Your task to perform on an android device: open app "Google Chrome" (install if not already installed) Image 0: 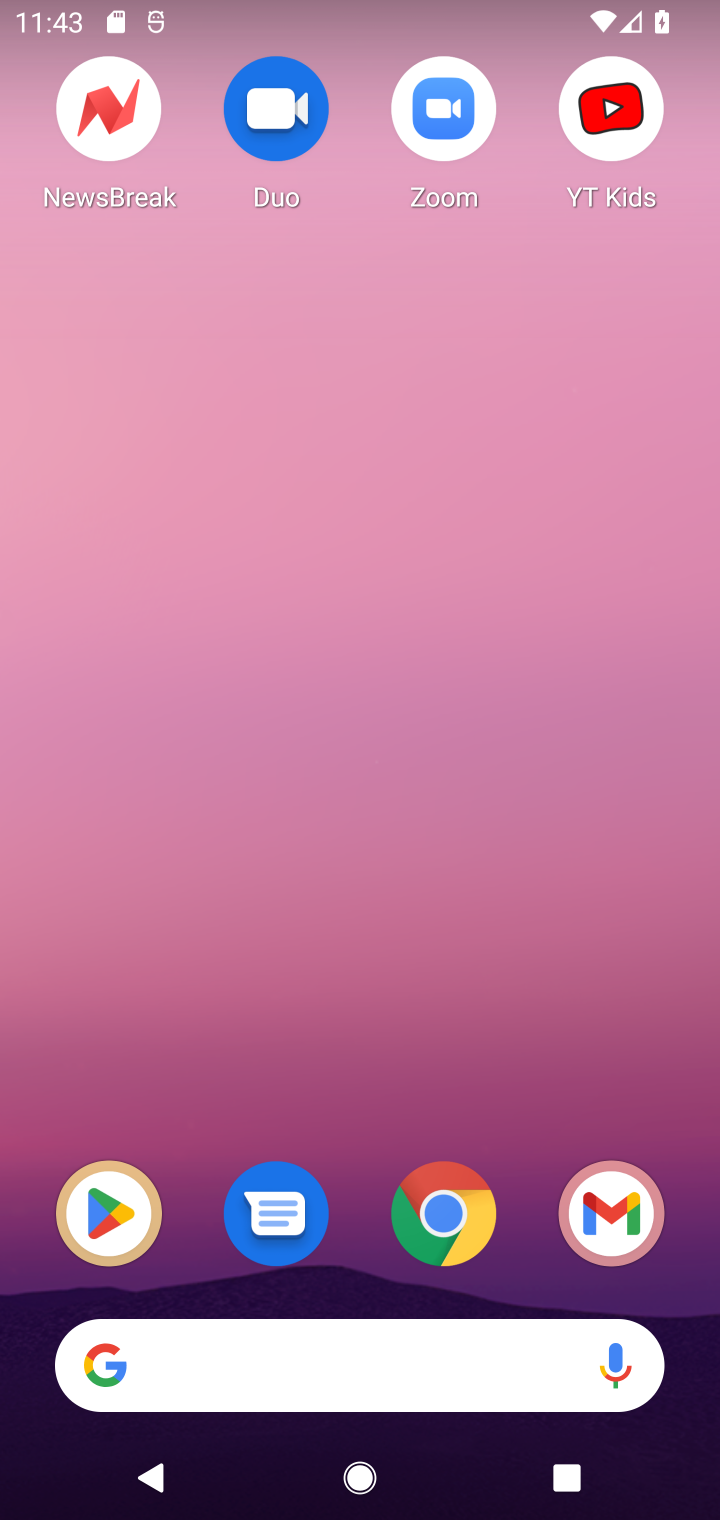
Step 0: click (455, 1229)
Your task to perform on an android device: open app "Google Chrome" (install if not already installed) Image 1: 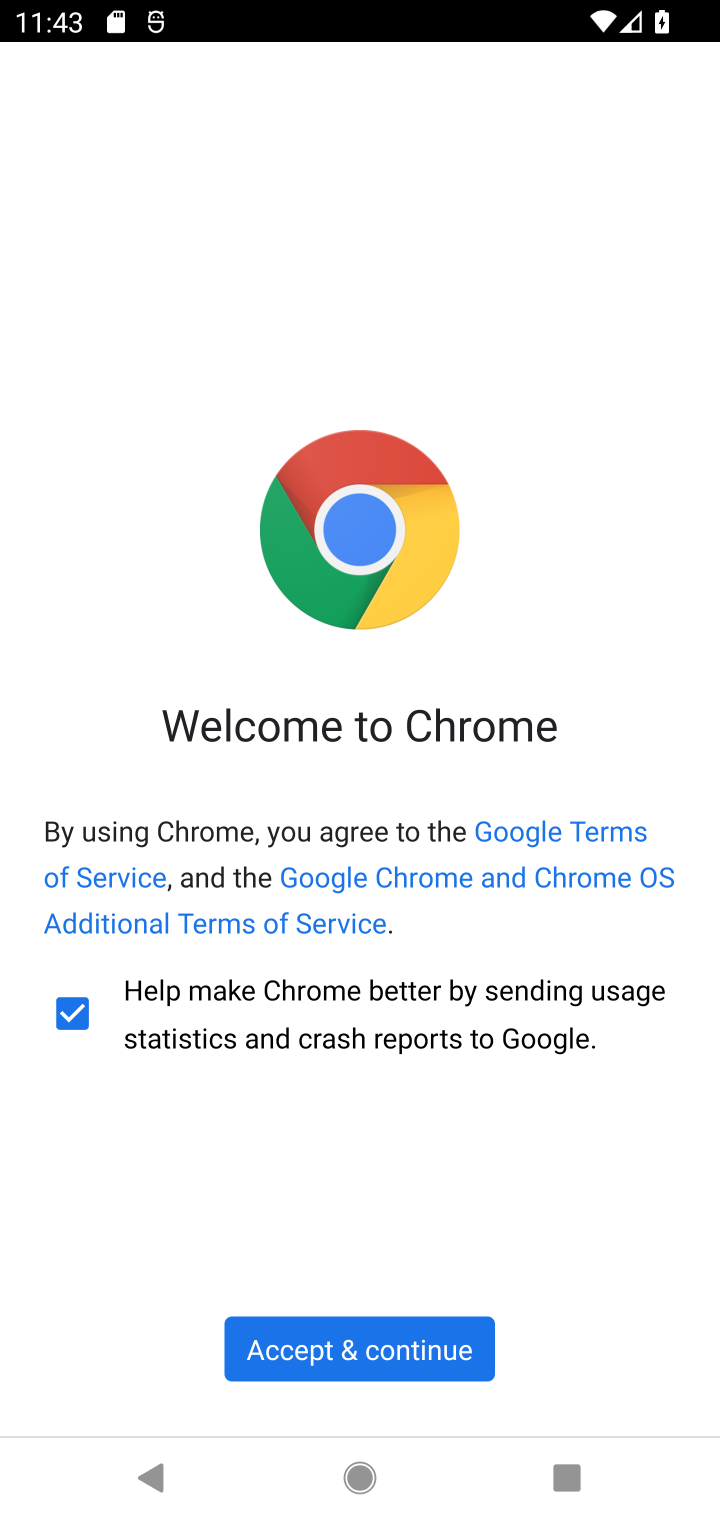
Step 1: click (330, 1333)
Your task to perform on an android device: open app "Google Chrome" (install if not already installed) Image 2: 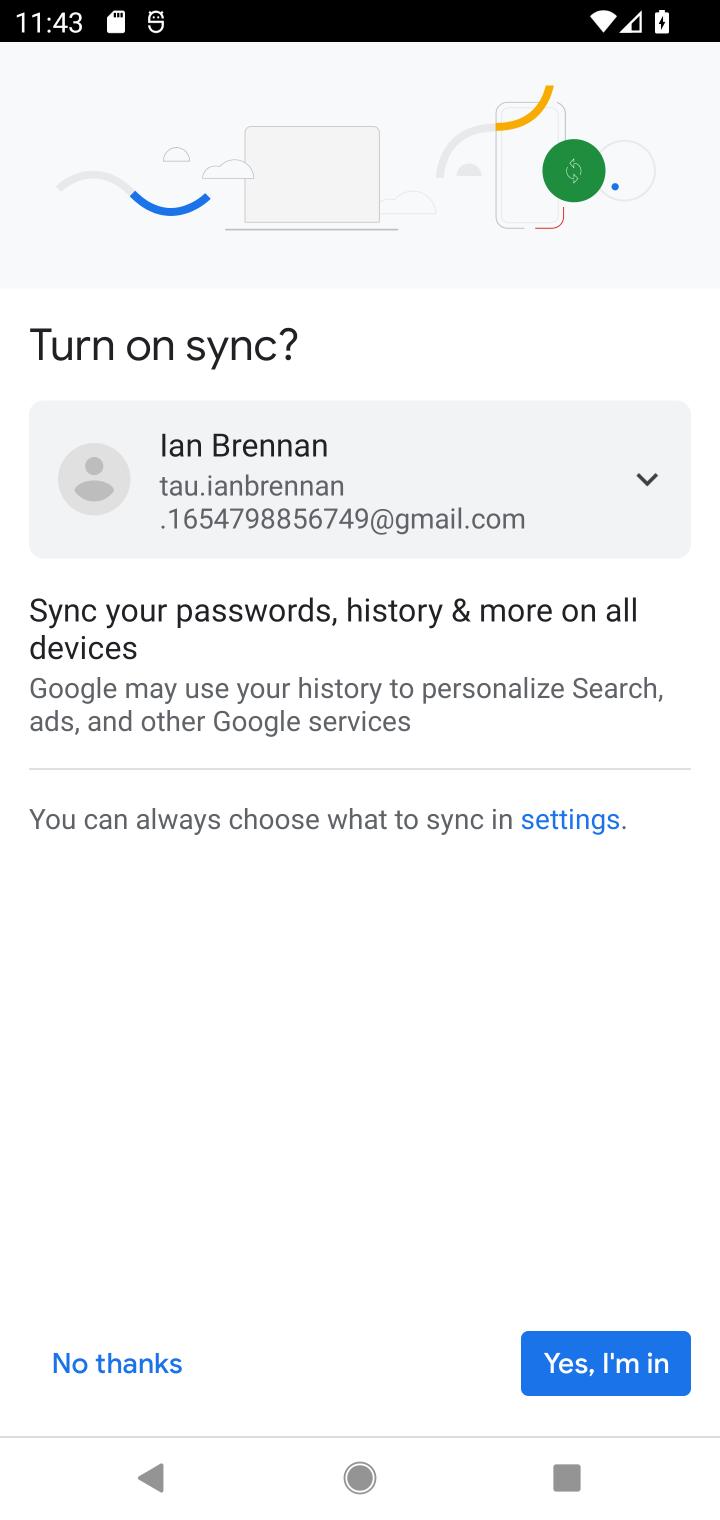
Step 2: click (552, 1366)
Your task to perform on an android device: open app "Google Chrome" (install if not already installed) Image 3: 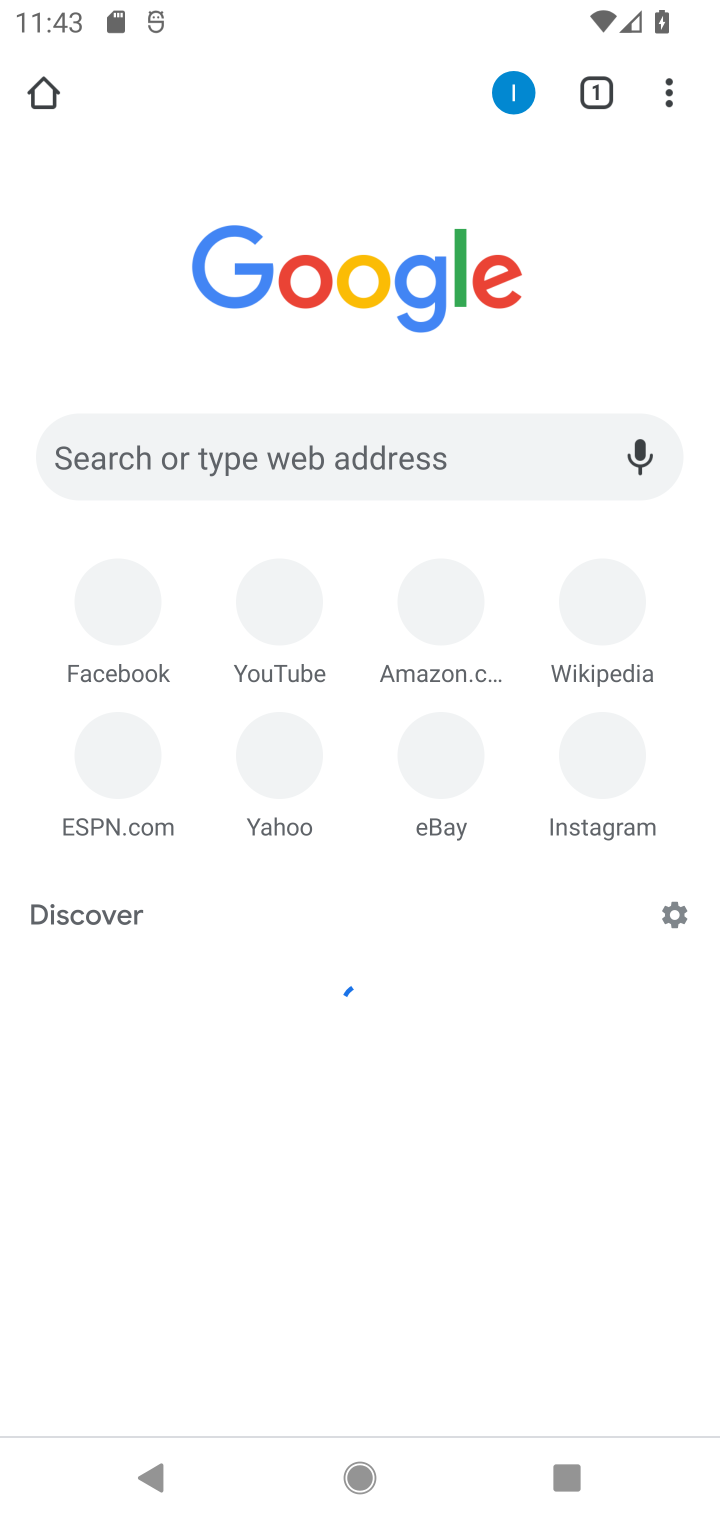
Step 3: task complete